Your task to perform on an android device: turn smart compose on in the gmail app Image 0: 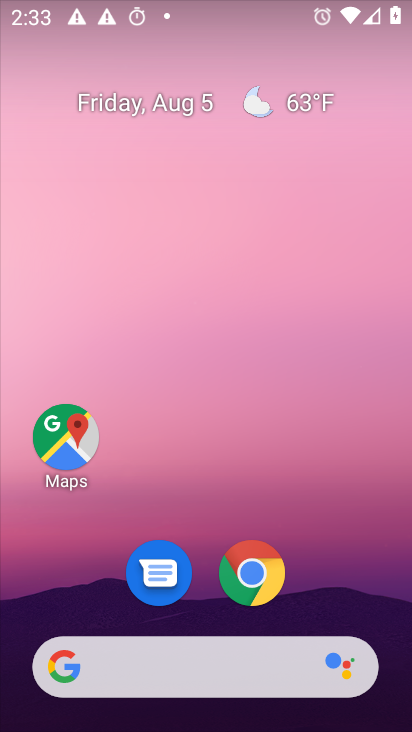
Step 0: press home button
Your task to perform on an android device: turn smart compose on in the gmail app Image 1: 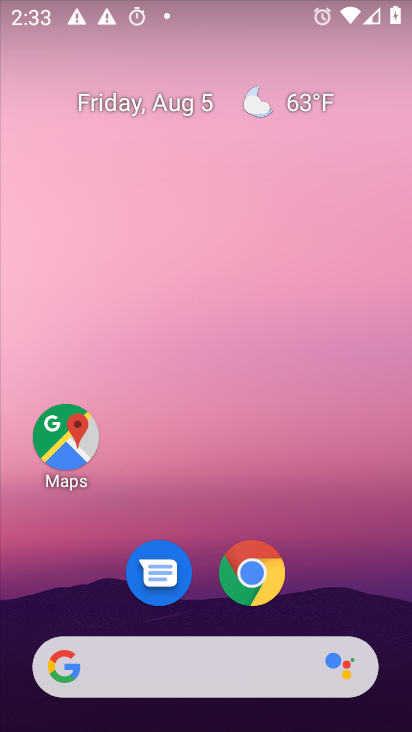
Step 1: drag from (343, 608) to (369, 234)
Your task to perform on an android device: turn smart compose on in the gmail app Image 2: 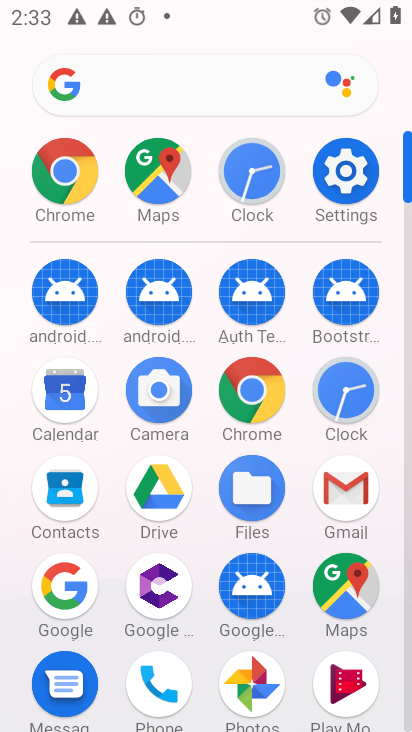
Step 2: click (347, 486)
Your task to perform on an android device: turn smart compose on in the gmail app Image 3: 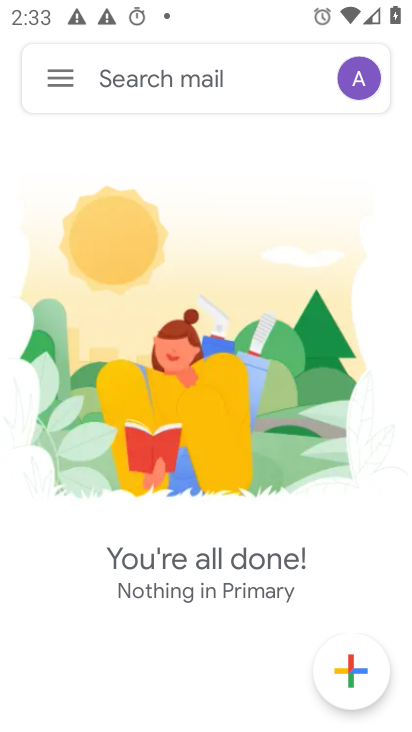
Step 3: click (60, 80)
Your task to perform on an android device: turn smart compose on in the gmail app Image 4: 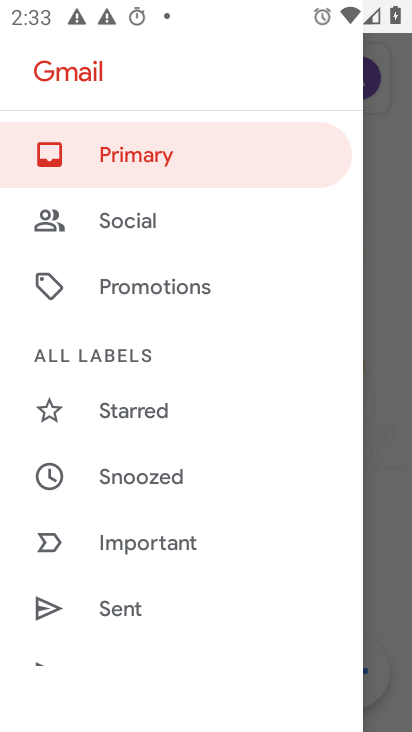
Step 4: drag from (249, 539) to (248, 357)
Your task to perform on an android device: turn smart compose on in the gmail app Image 5: 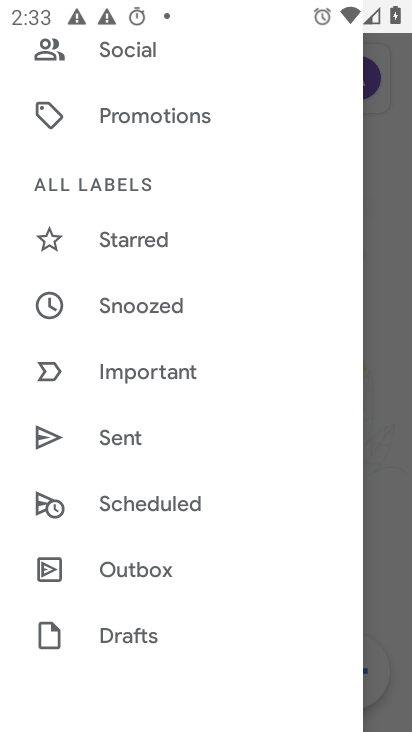
Step 5: drag from (271, 530) to (262, 356)
Your task to perform on an android device: turn smart compose on in the gmail app Image 6: 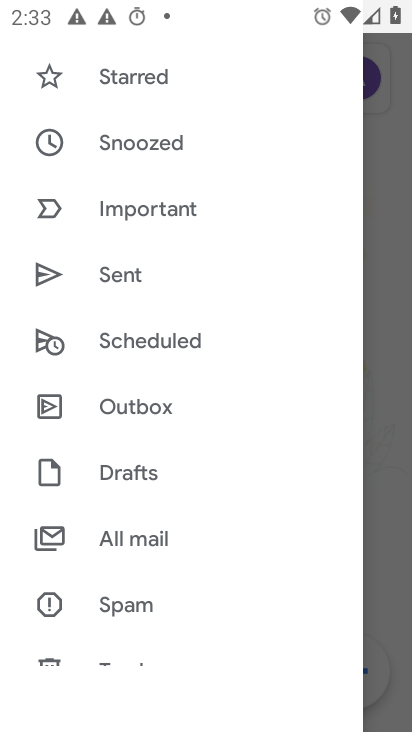
Step 6: drag from (253, 550) to (249, 380)
Your task to perform on an android device: turn smart compose on in the gmail app Image 7: 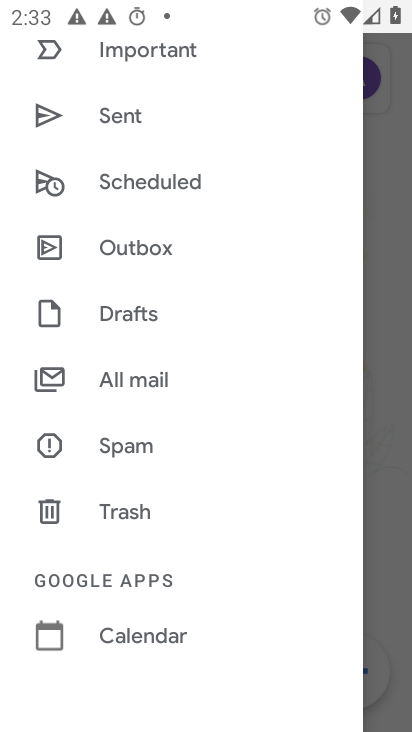
Step 7: drag from (252, 593) to (256, 387)
Your task to perform on an android device: turn smart compose on in the gmail app Image 8: 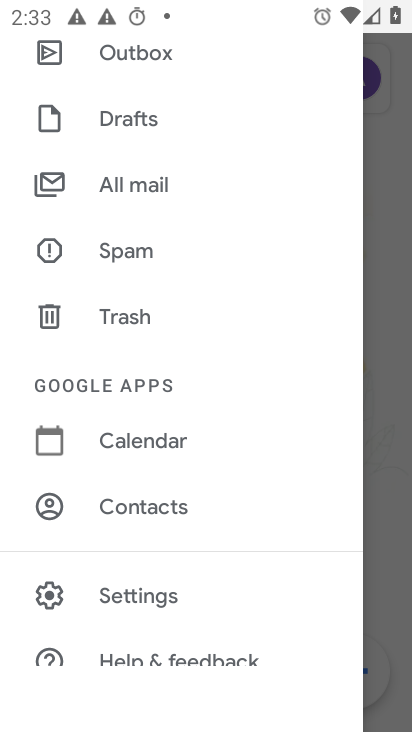
Step 8: click (168, 593)
Your task to perform on an android device: turn smart compose on in the gmail app Image 9: 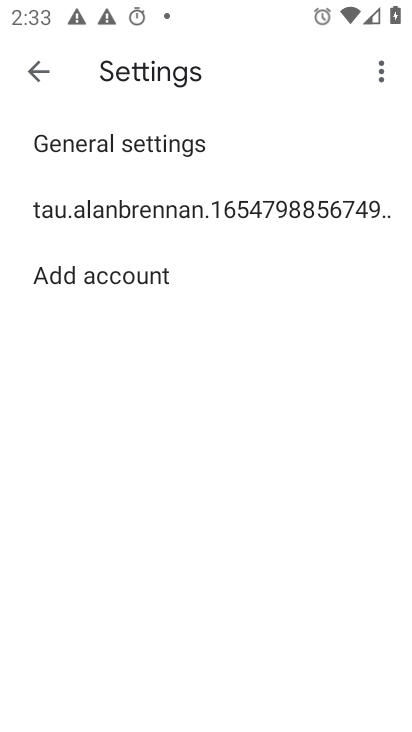
Step 9: click (215, 209)
Your task to perform on an android device: turn smart compose on in the gmail app Image 10: 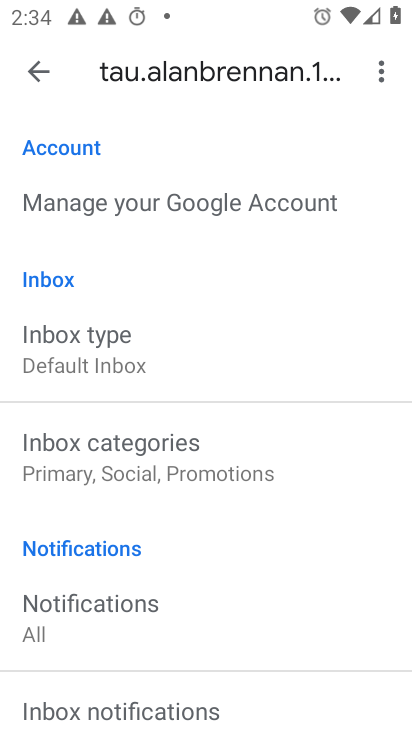
Step 10: task complete